Your task to perform on an android device: install app "Microsoft Excel" Image 0: 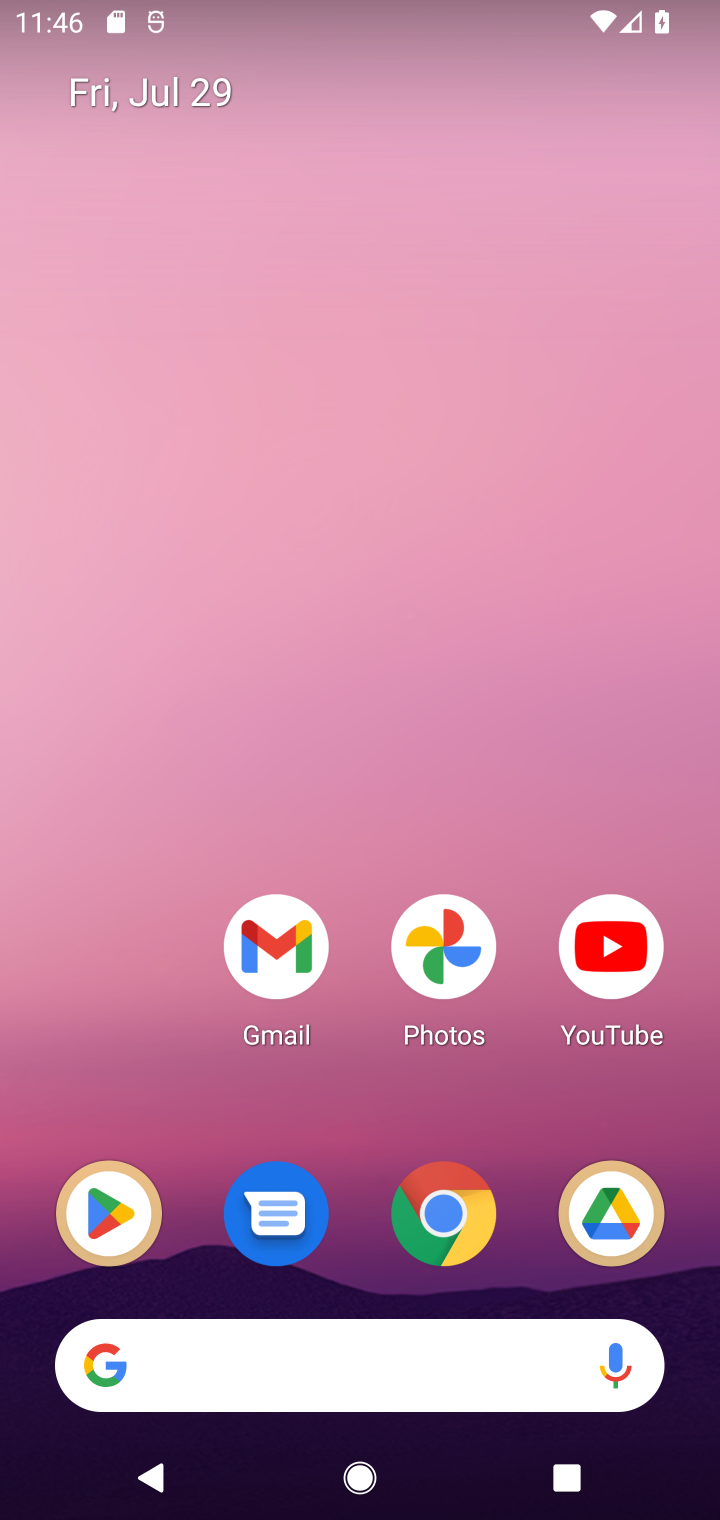
Step 0: drag from (430, 1313) to (437, 218)
Your task to perform on an android device: install app "Microsoft Excel" Image 1: 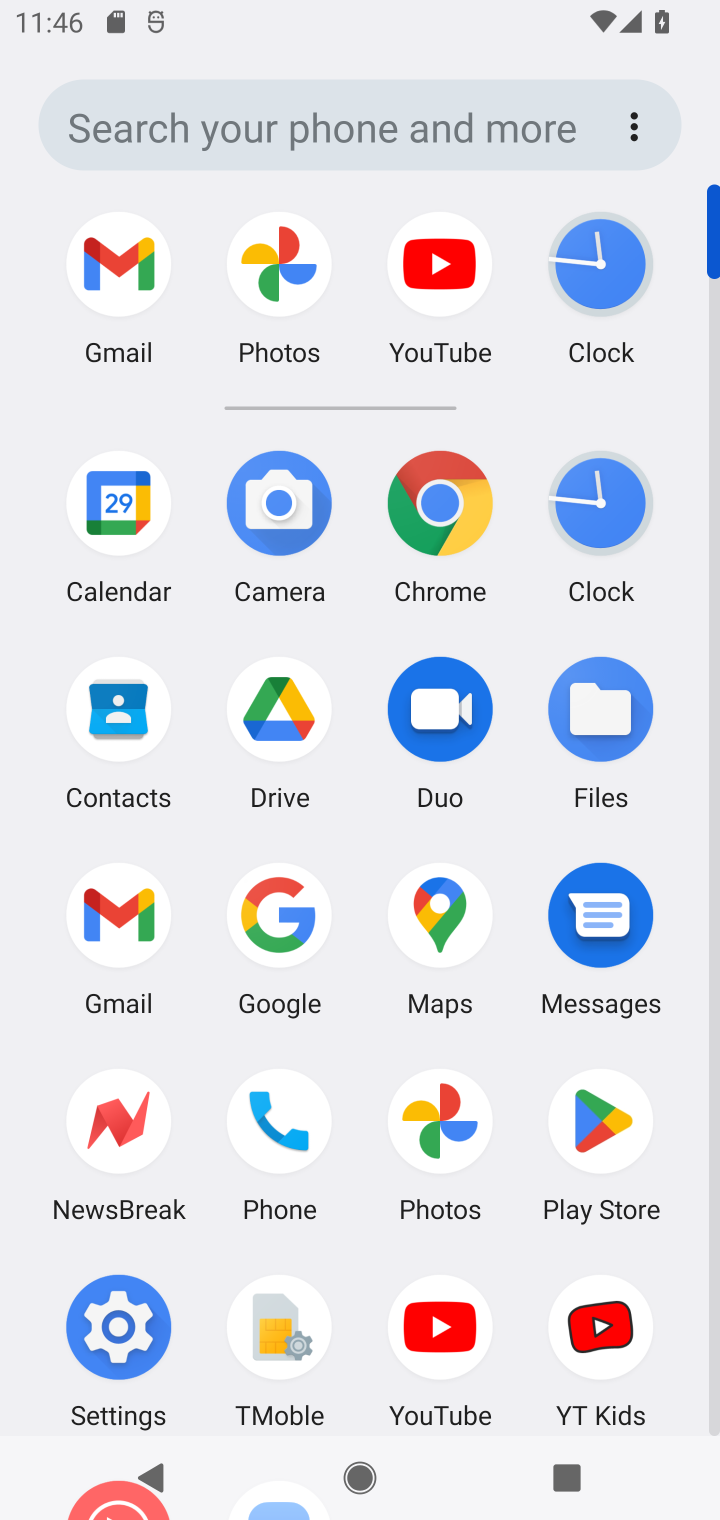
Step 1: click (603, 1129)
Your task to perform on an android device: install app "Microsoft Excel" Image 2: 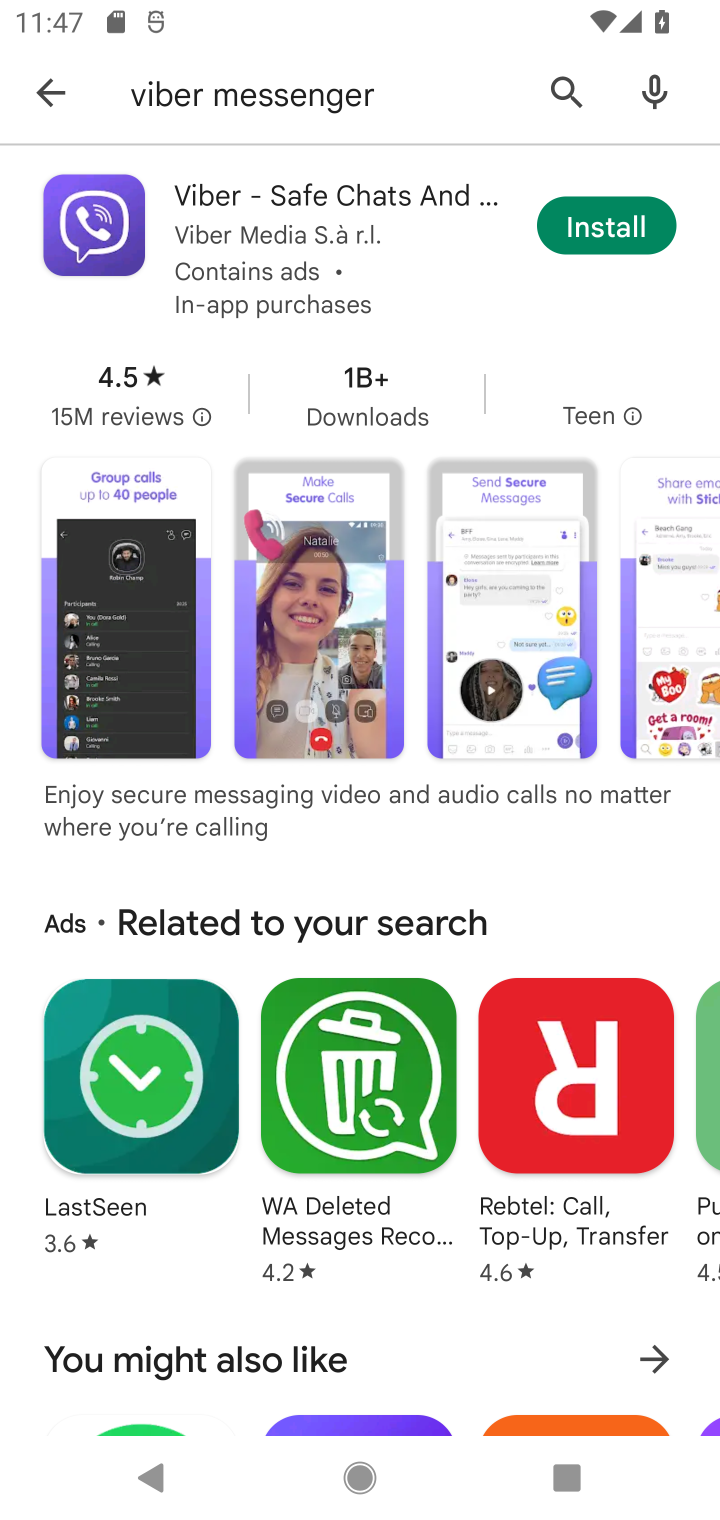
Step 2: click (573, 94)
Your task to perform on an android device: install app "Microsoft Excel" Image 3: 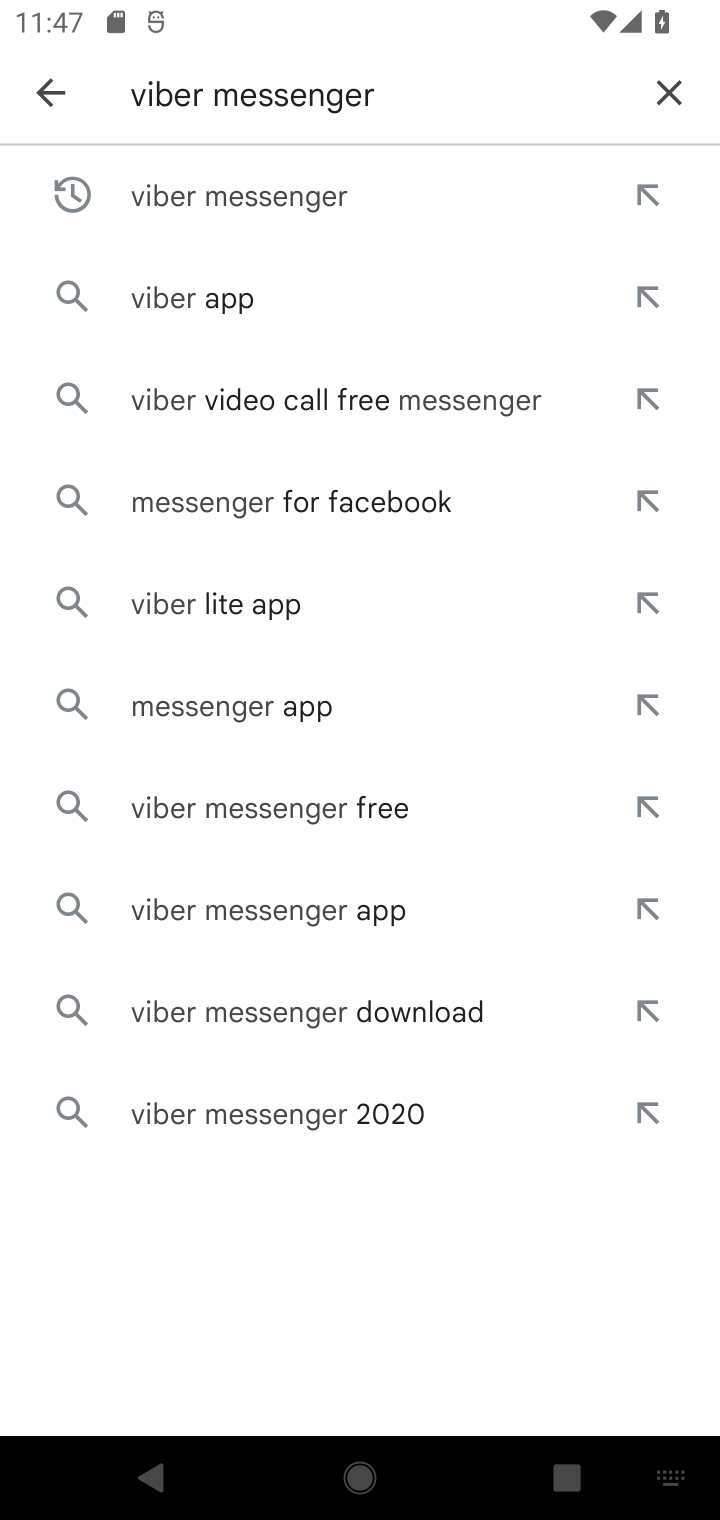
Step 3: click (667, 99)
Your task to perform on an android device: install app "Microsoft Excel" Image 4: 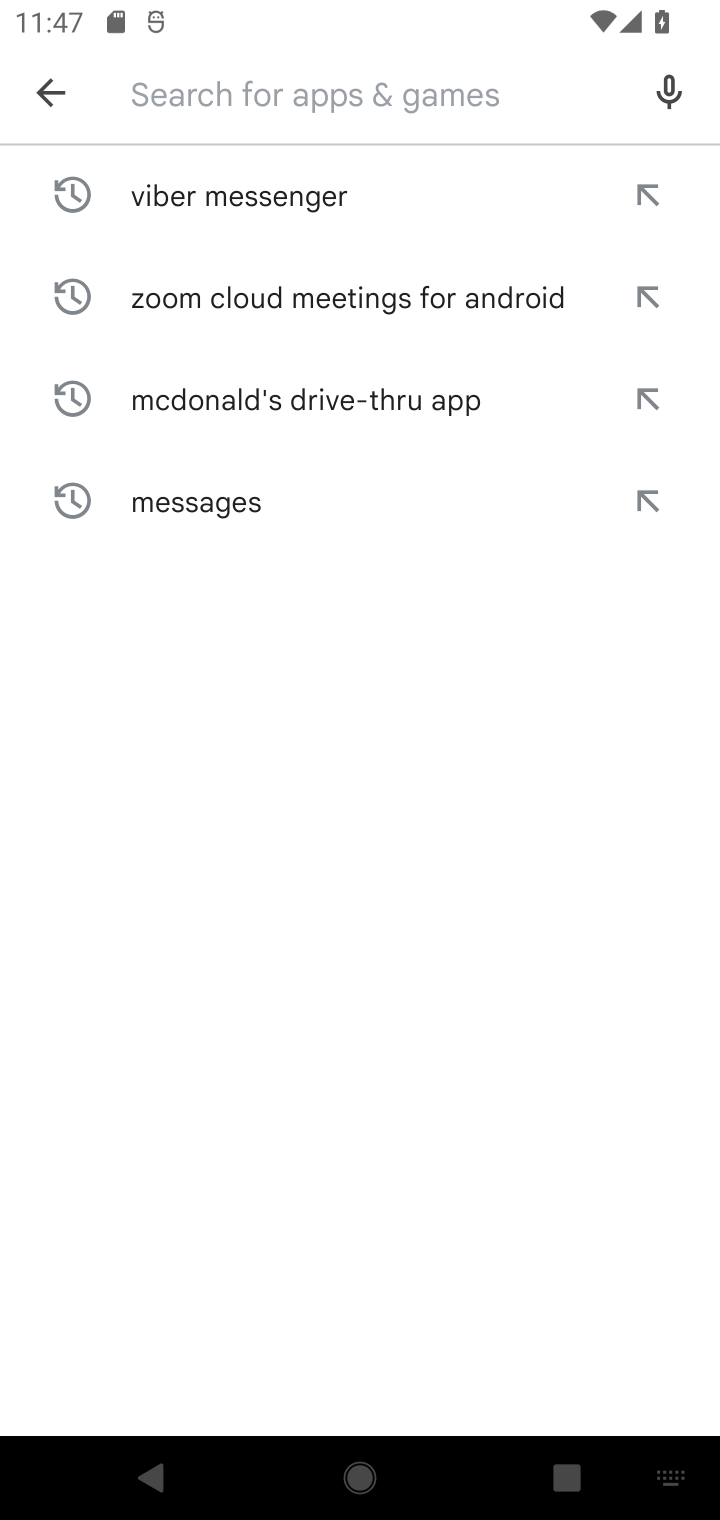
Step 4: type "Microsoft Excel"
Your task to perform on an android device: install app "Microsoft Excel" Image 5: 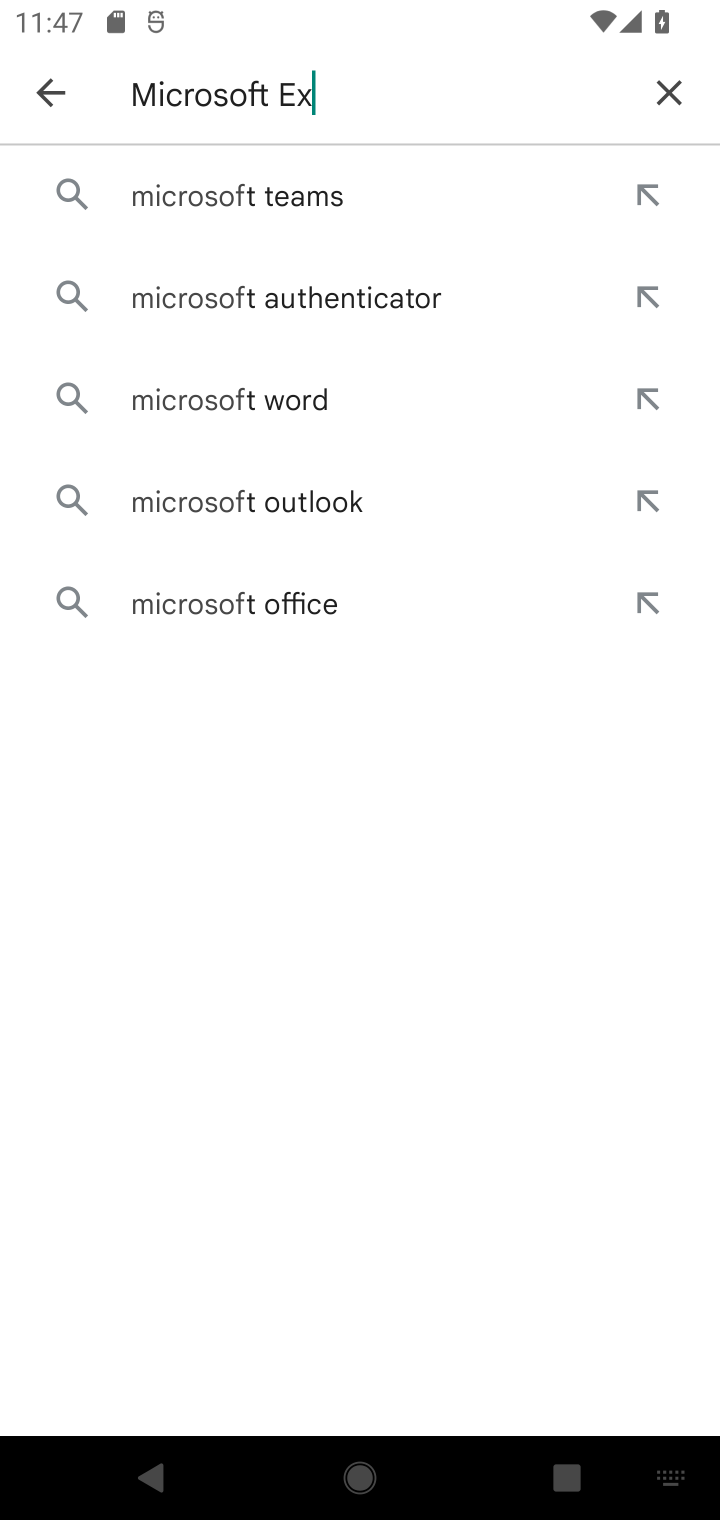
Step 5: type ""
Your task to perform on an android device: install app "Microsoft Excel" Image 6: 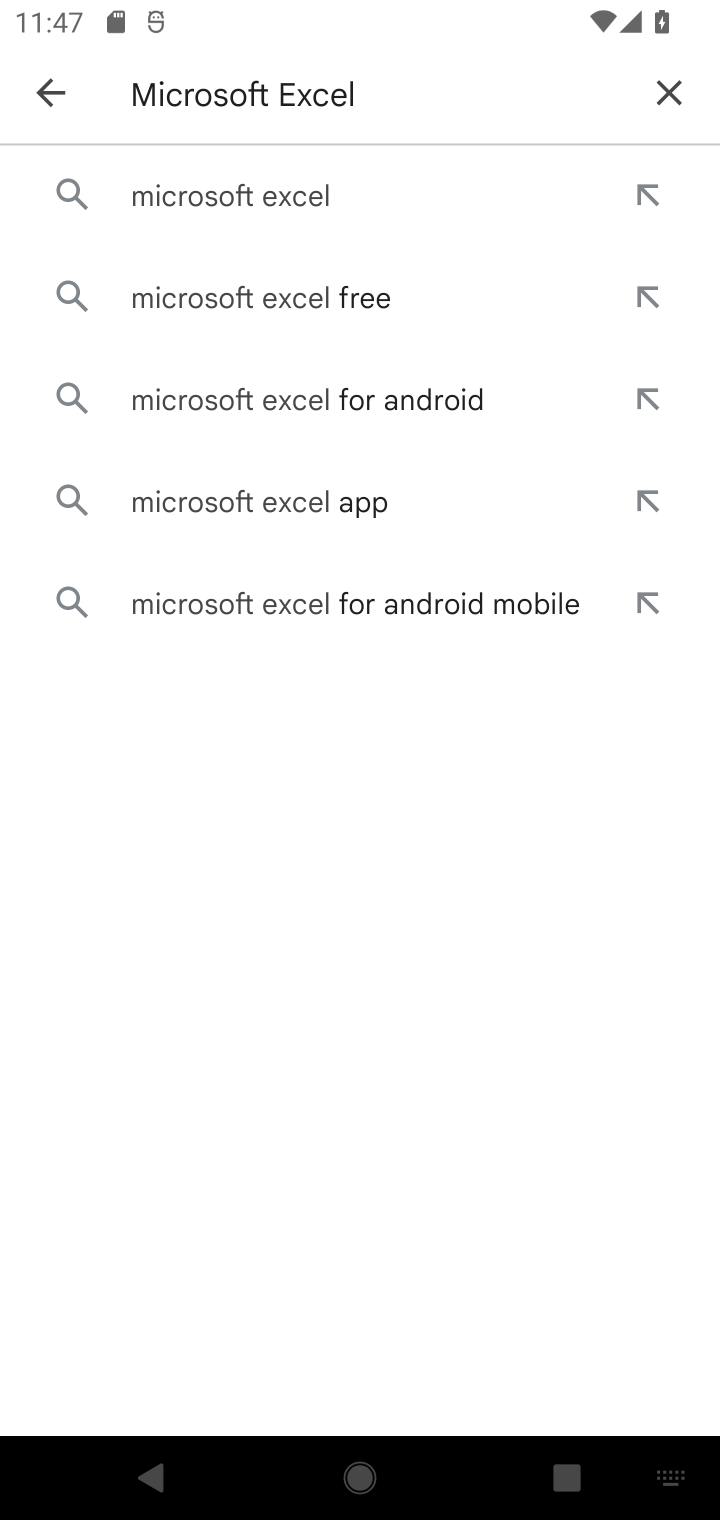
Step 6: click (204, 199)
Your task to perform on an android device: install app "Microsoft Excel" Image 7: 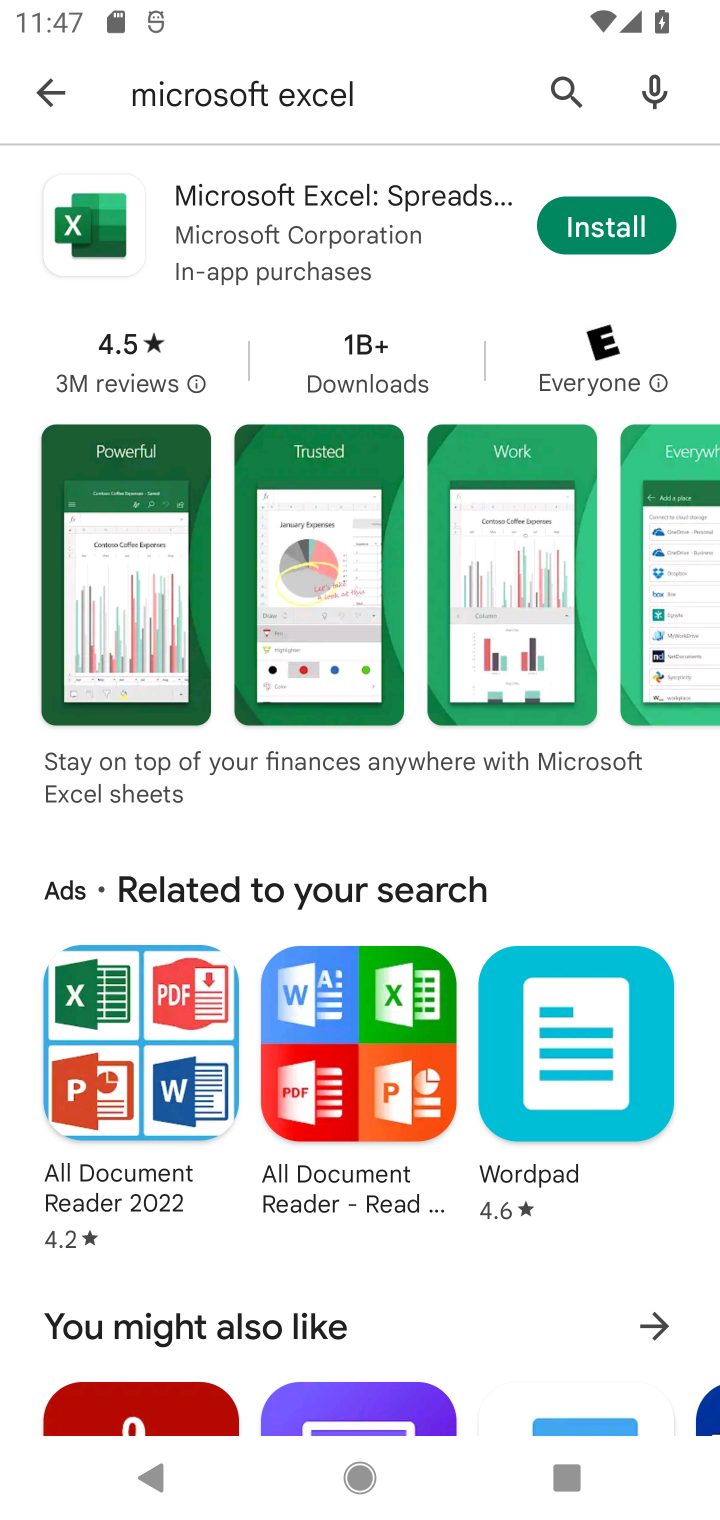
Step 7: click (642, 224)
Your task to perform on an android device: install app "Microsoft Excel" Image 8: 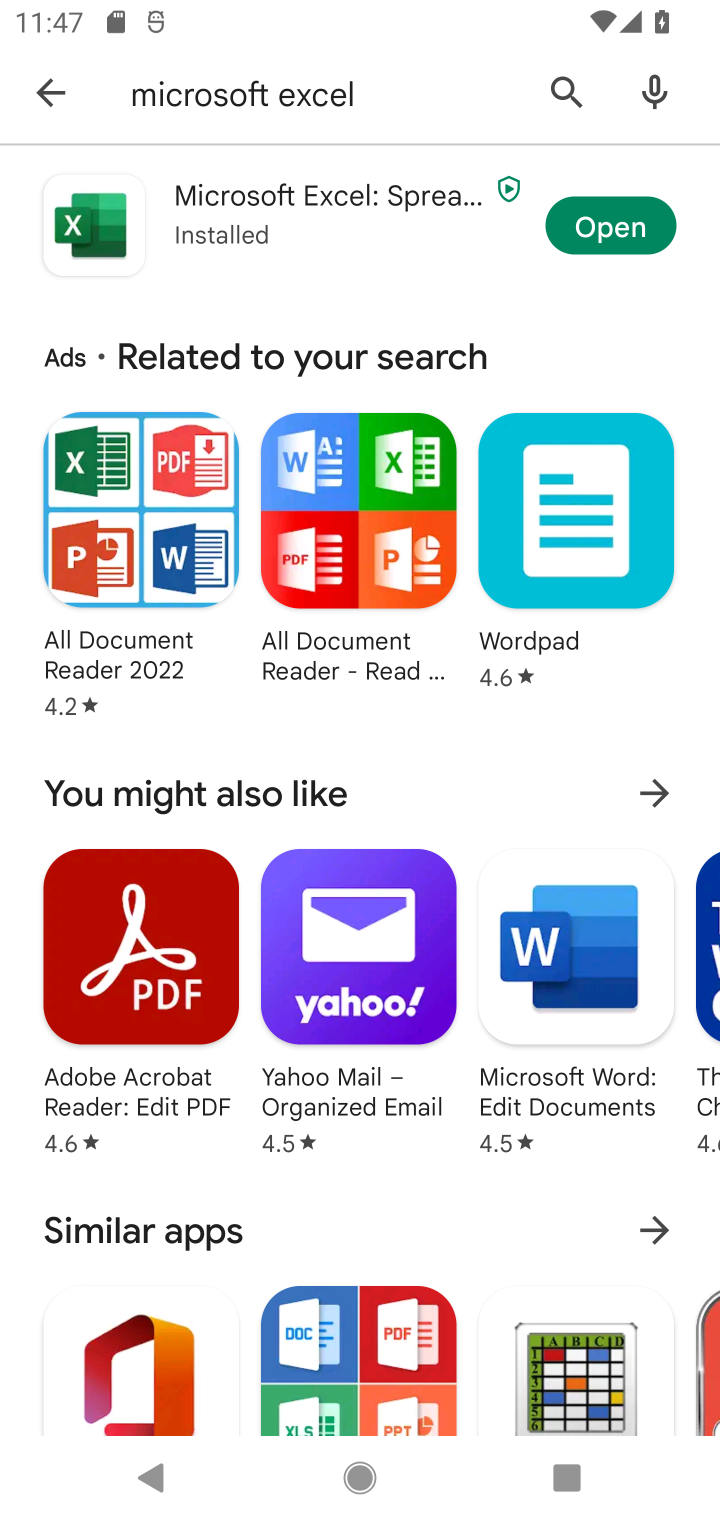
Step 8: task complete